Your task to perform on an android device: find which apps use the phone's location Image 0: 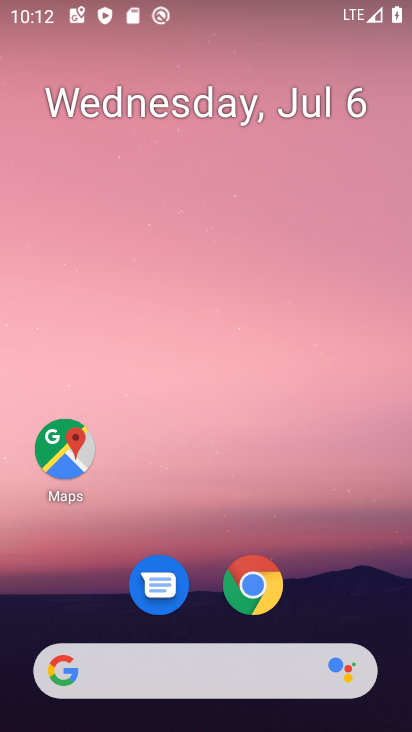
Step 0: drag from (216, 480) to (243, 6)
Your task to perform on an android device: find which apps use the phone's location Image 1: 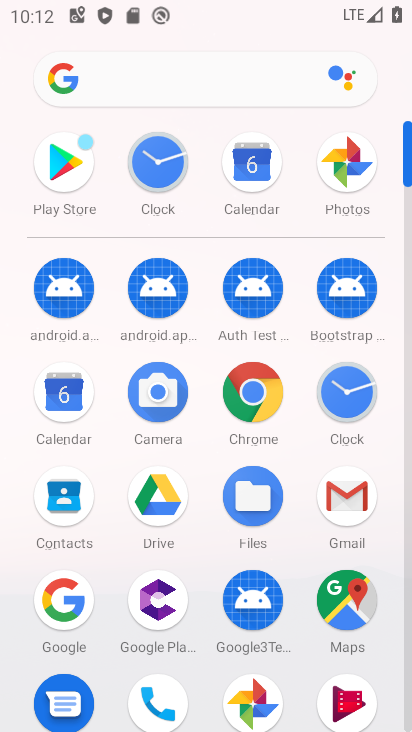
Step 1: drag from (210, 559) to (202, 173)
Your task to perform on an android device: find which apps use the phone's location Image 2: 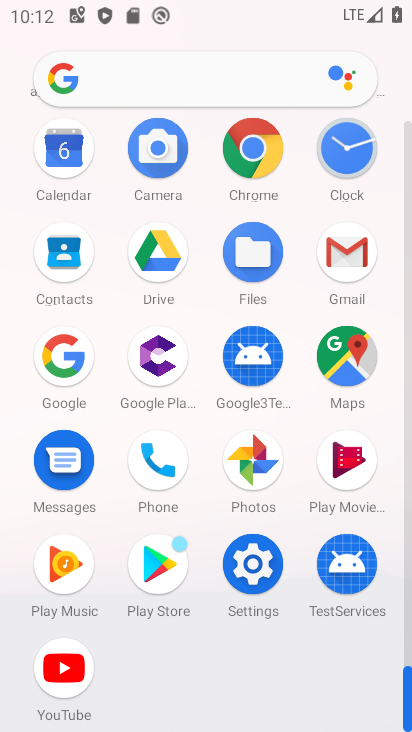
Step 2: click (267, 564)
Your task to perform on an android device: find which apps use the phone's location Image 3: 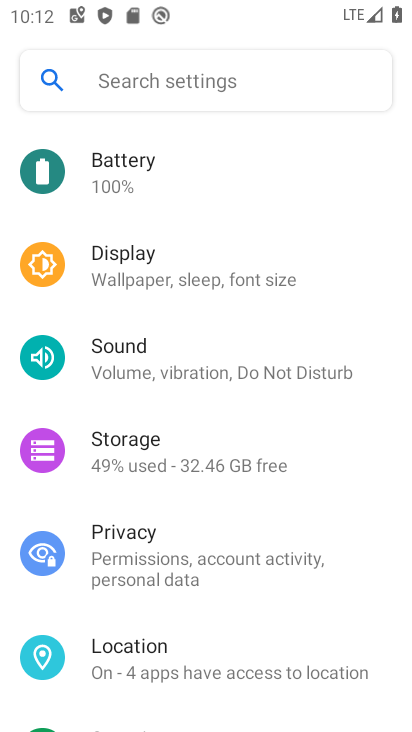
Step 3: click (229, 662)
Your task to perform on an android device: find which apps use the phone's location Image 4: 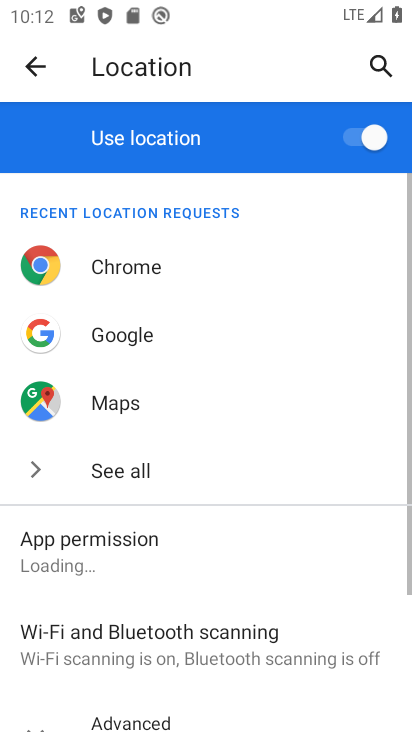
Step 4: click (156, 540)
Your task to perform on an android device: find which apps use the phone's location Image 5: 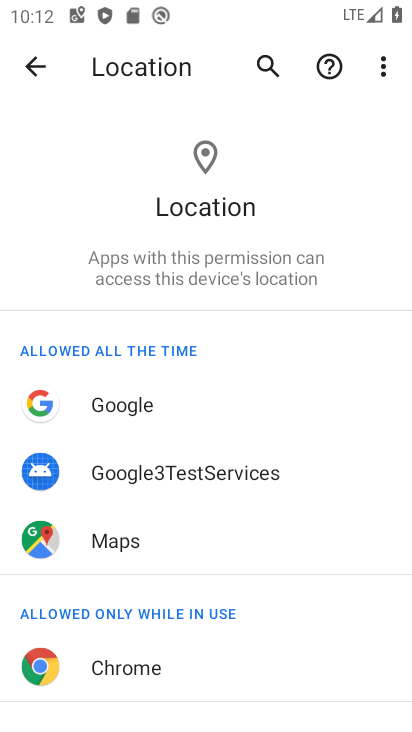
Step 5: task complete